Your task to perform on an android device: Go to Google Image 0: 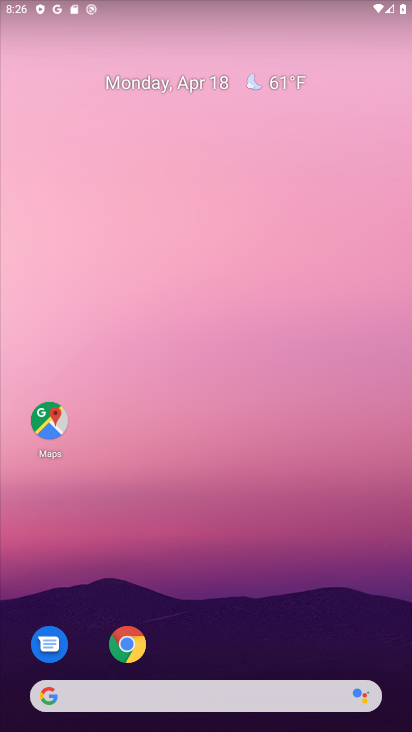
Step 0: drag from (279, 703) to (278, 121)
Your task to perform on an android device: Go to Google Image 1: 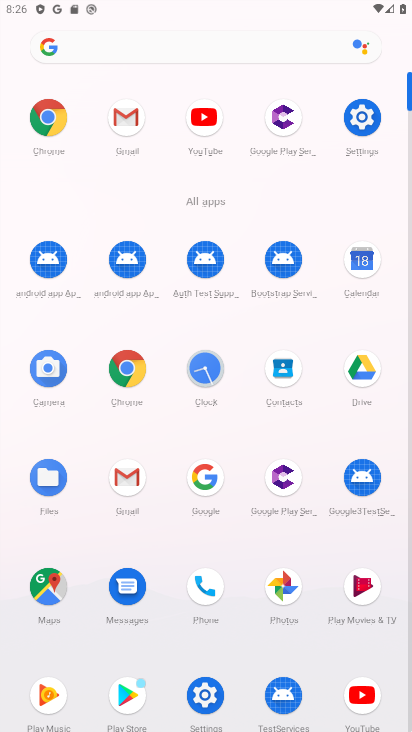
Step 1: click (220, 479)
Your task to perform on an android device: Go to Google Image 2: 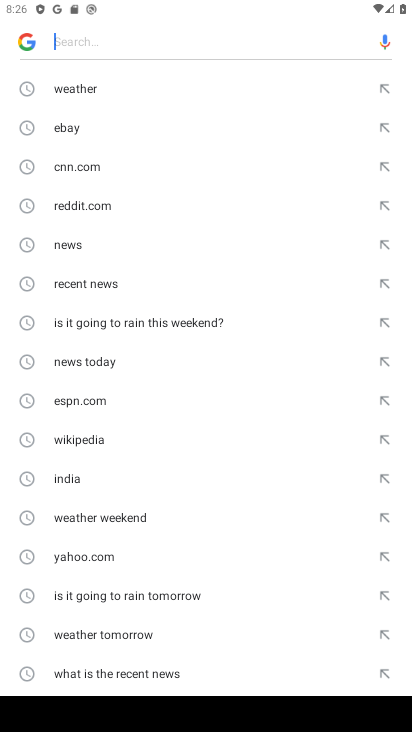
Step 2: task complete